Your task to perform on an android device: Open the phone app and click the voicemail tab. Image 0: 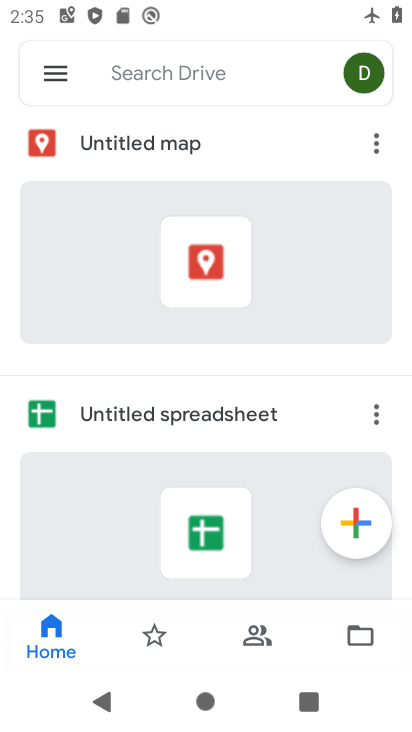
Step 0: press home button
Your task to perform on an android device: Open the phone app and click the voicemail tab. Image 1: 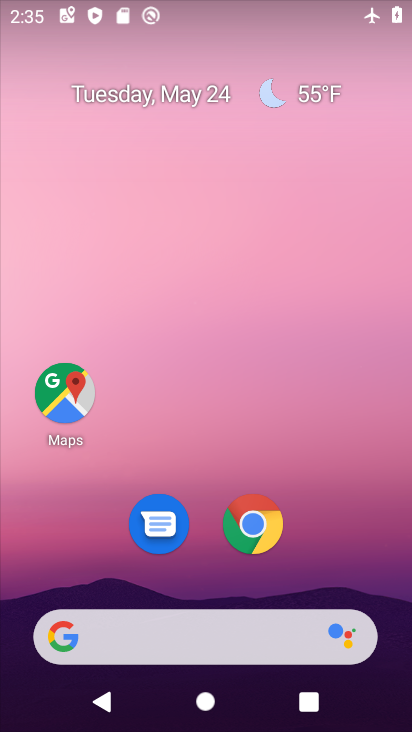
Step 1: drag from (229, 439) to (272, 11)
Your task to perform on an android device: Open the phone app and click the voicemail tab. Image 2: 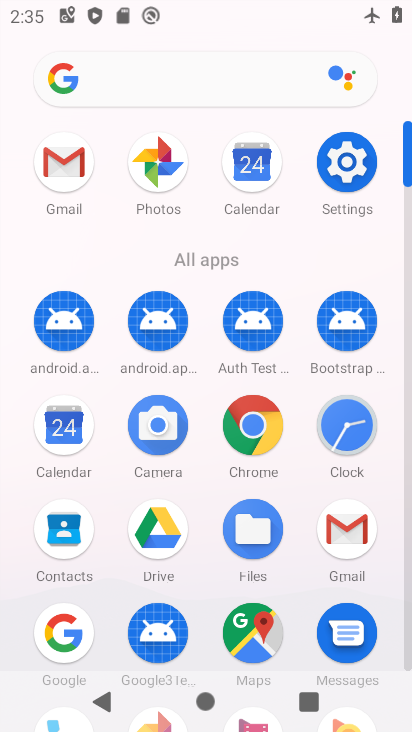
Step 2: drag from (201, 563) to (220, 255)
Your task to perform on an android device: Open the phone app and click the voicemail tab. Image 3: 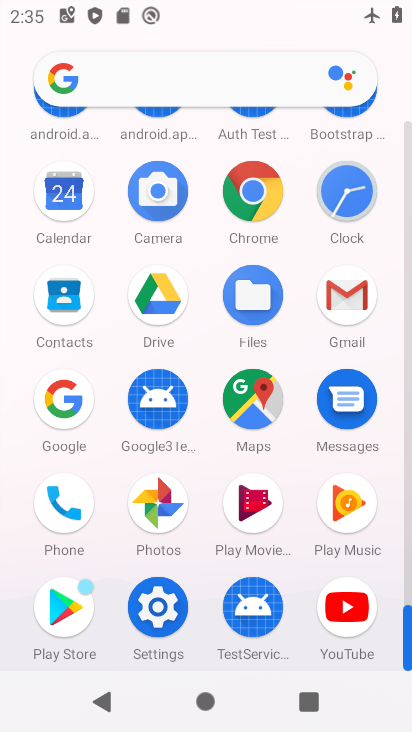
Step 3: click (57, 489)
Your task to perform on an android device: Open the phone app and click the voicemail tab. Image 4: 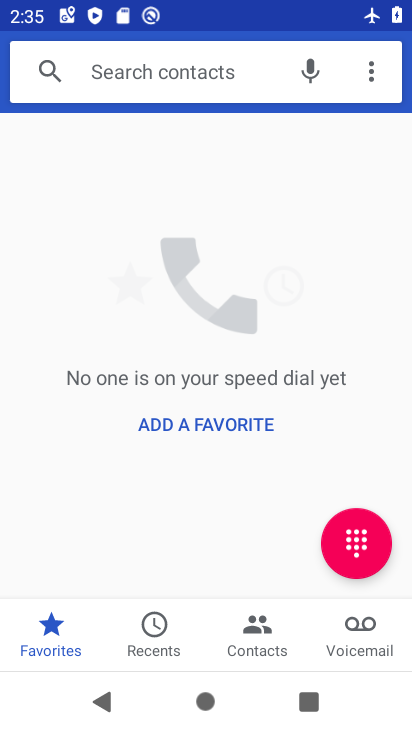
Step 4: click (370, 641)
Your task to perform on an android device: Open the phone app and click the voicemail tab. Image 5: 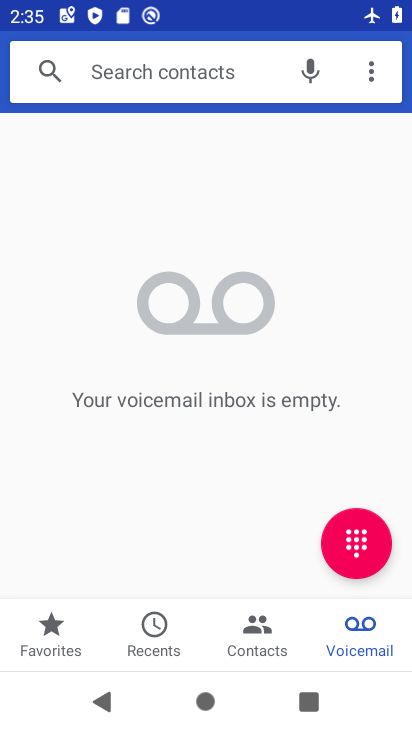
Step 5: task complete